Your task to perform on an android device: install app "Roku - Official Remote Control" Image 0: 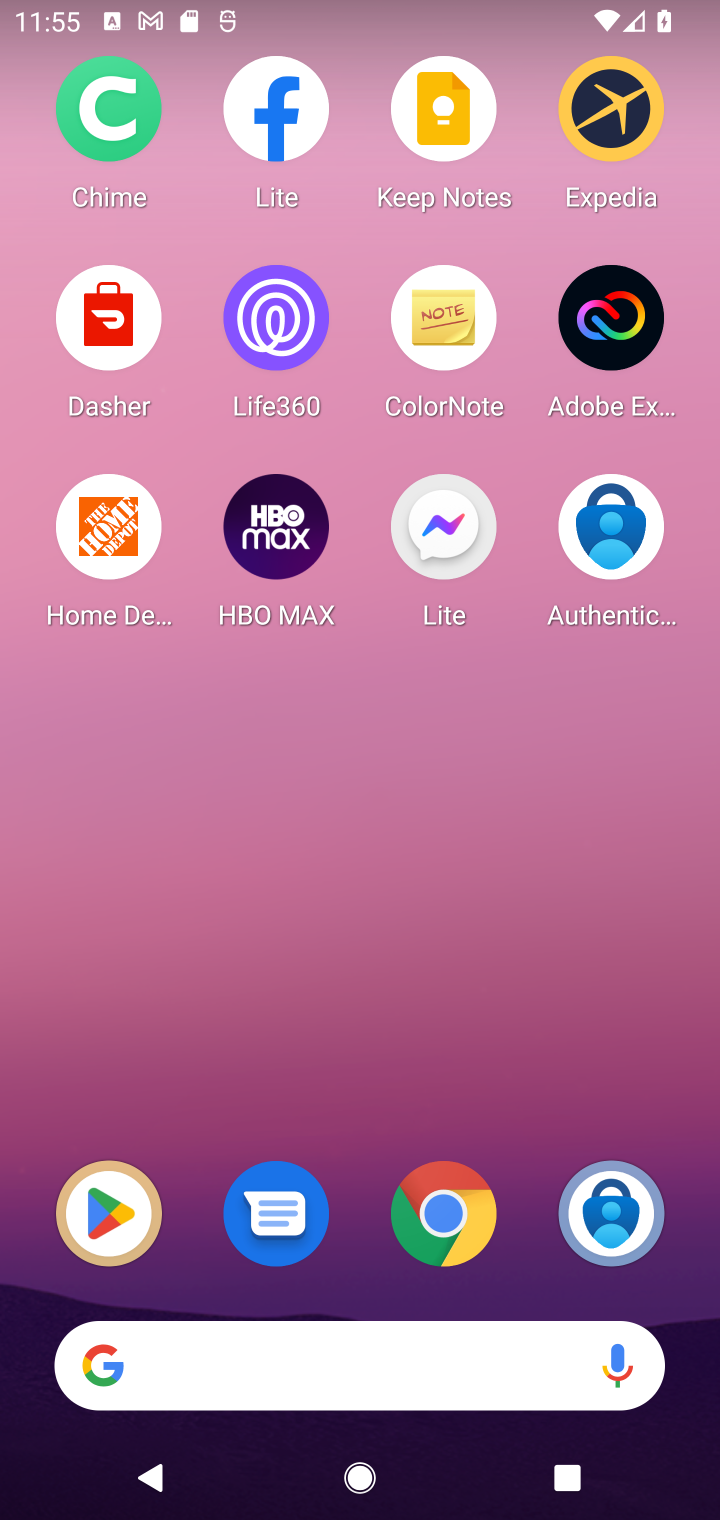
Step 0: click (67, 1241)
Your task to perform on an android device: install app "Roku - Official Remote Control" Image 1: 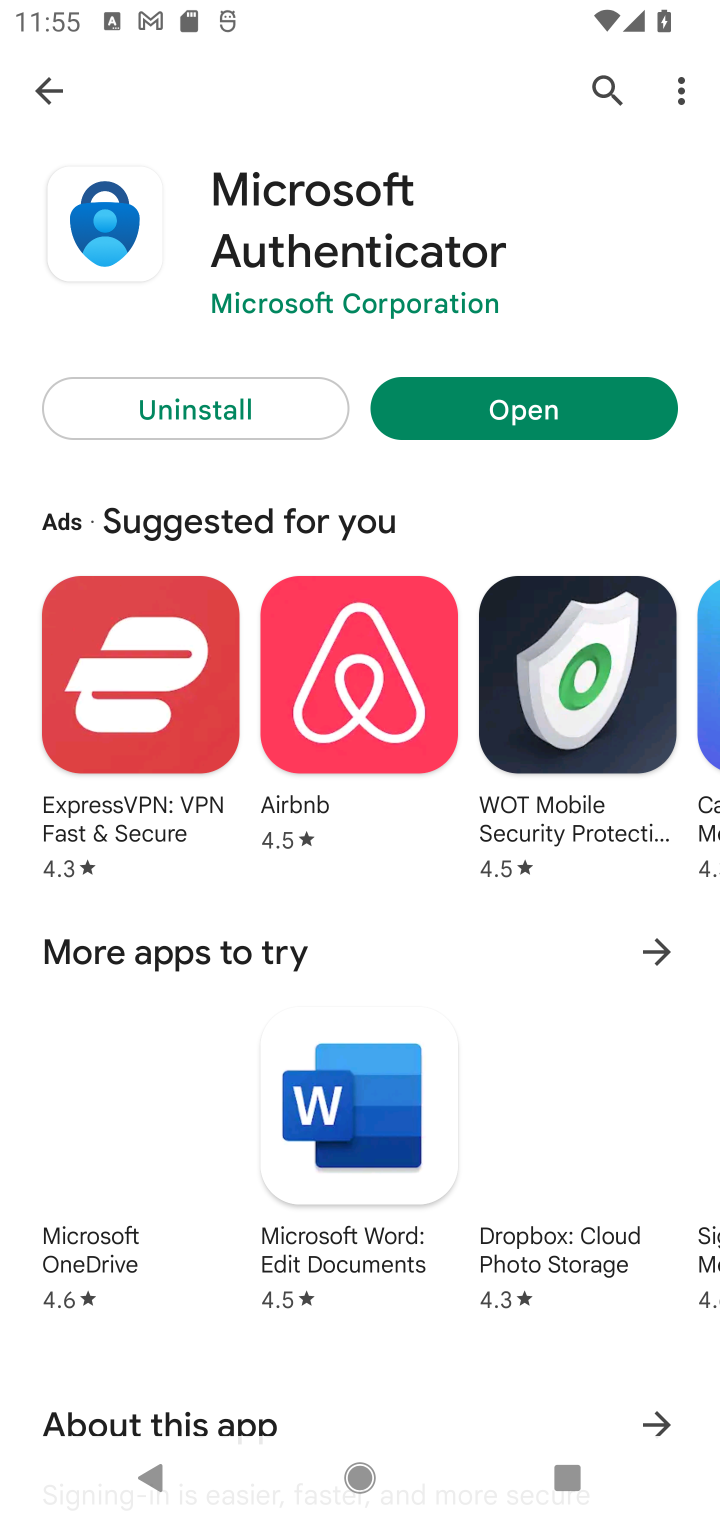
Step 1: click (49, 69)
Your task to perform on an android device: install app "Roku - Official Remote Control" Image 2: 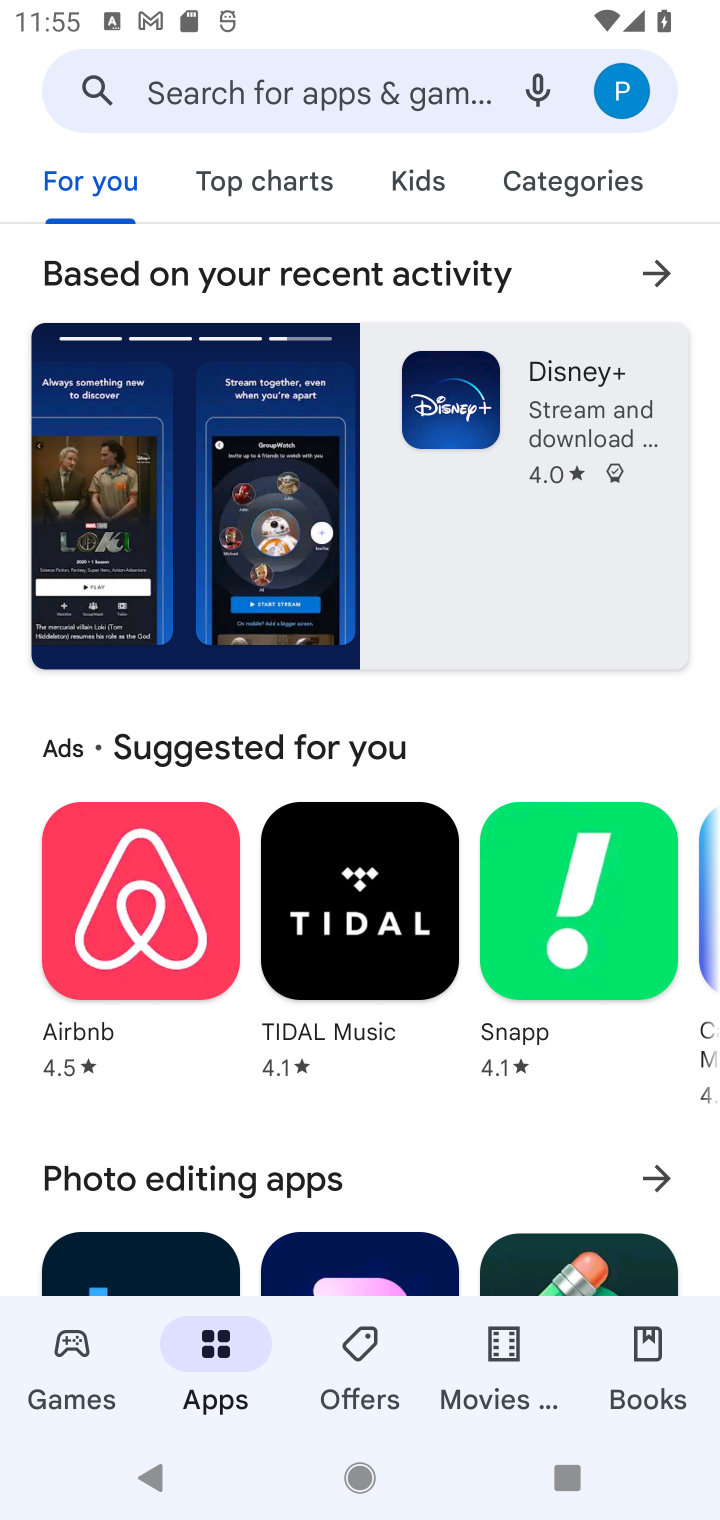
Step 2: click (282, 74)
Your task to perform on an android device: install app "Roku - Official Remote Control" Image 3: 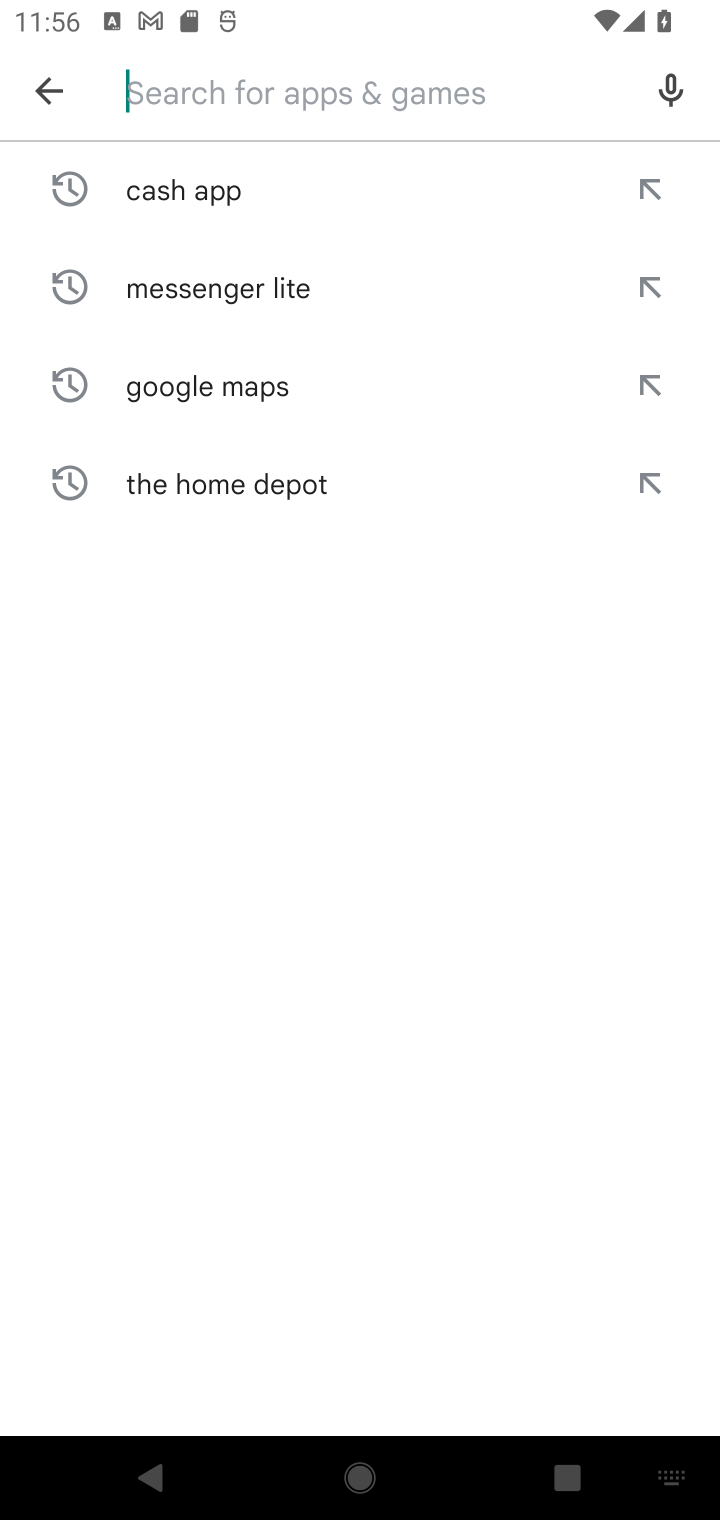
Step 3: type "Roku"
Your task to perform on an android device: install app "Roku - Official Remote Control" Image 4: 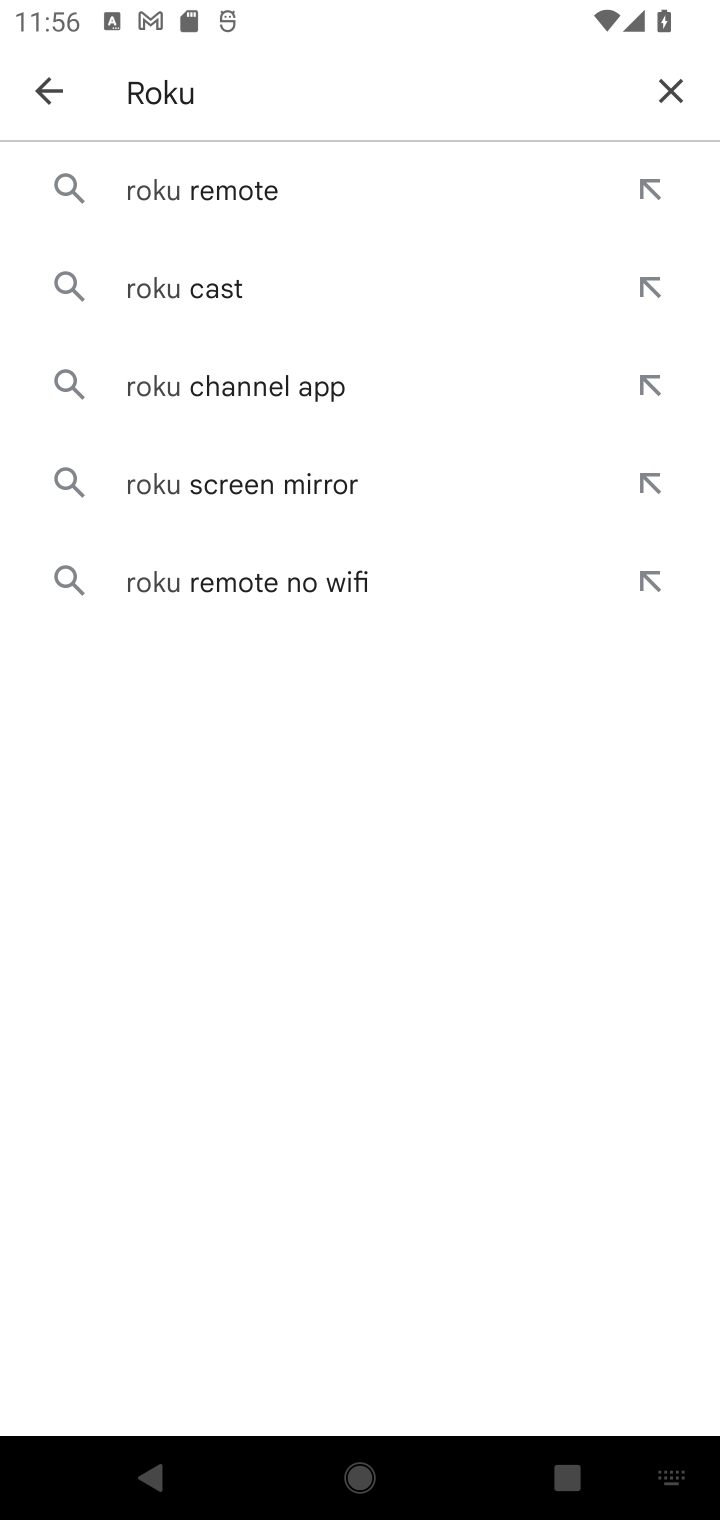
Step 4: click (681, 93)
Your task to perform on an android device: install app "Roku - Official Remote Control" Image 5: 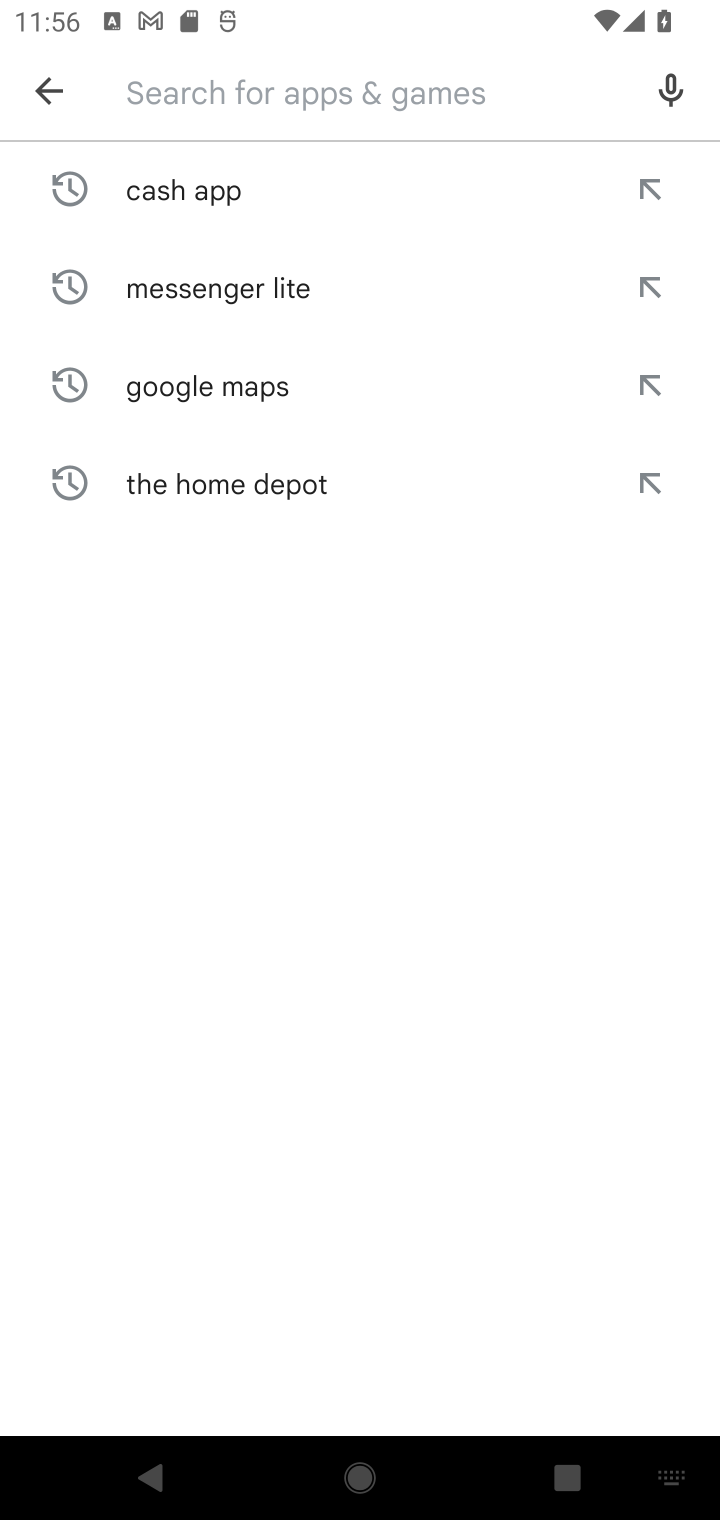
Step 5: click (398, 98)
Your task to perform on an android device: install app "Roku - Official Remote Control" Image 6: 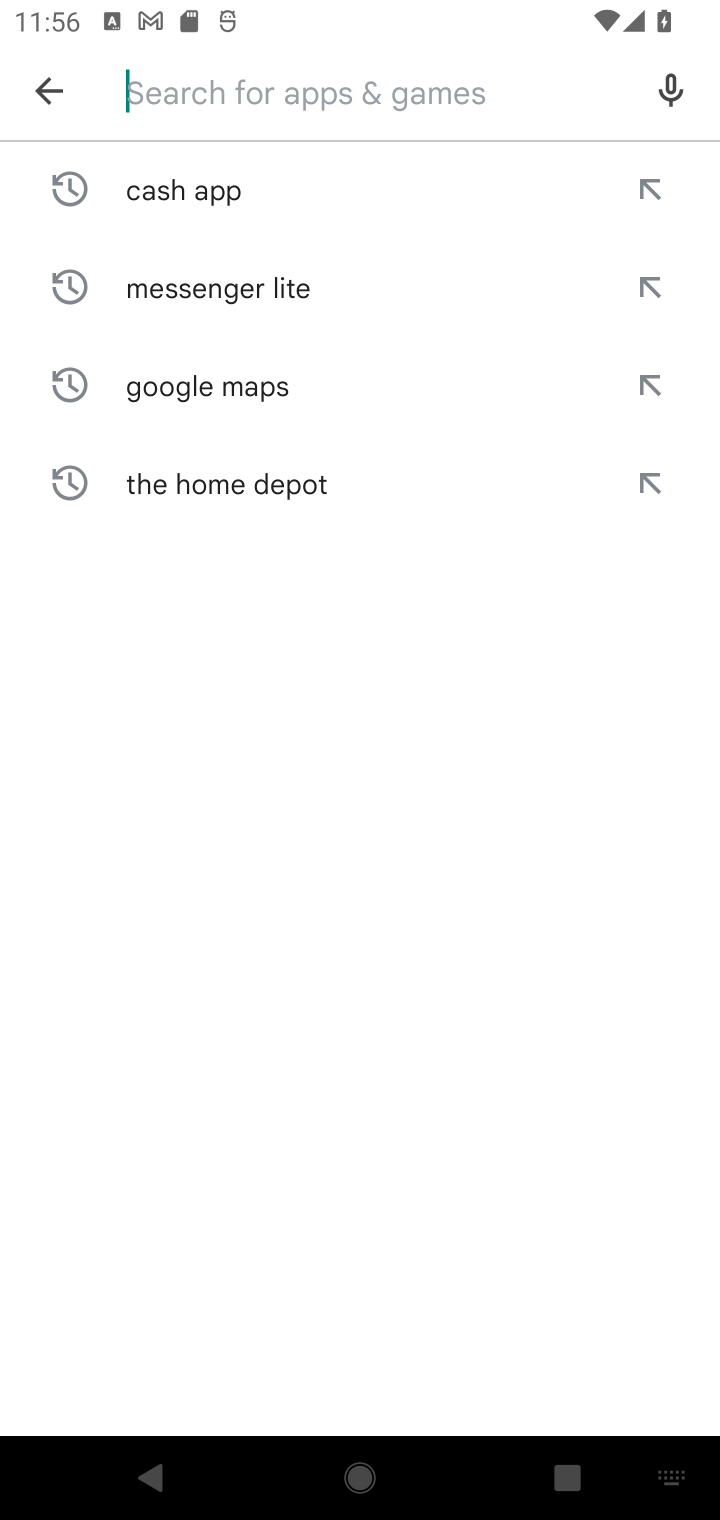
Step 6: click (398, 98)
Your task to perform on an android device: install app "Roku - Official Remote Control" Image 7: 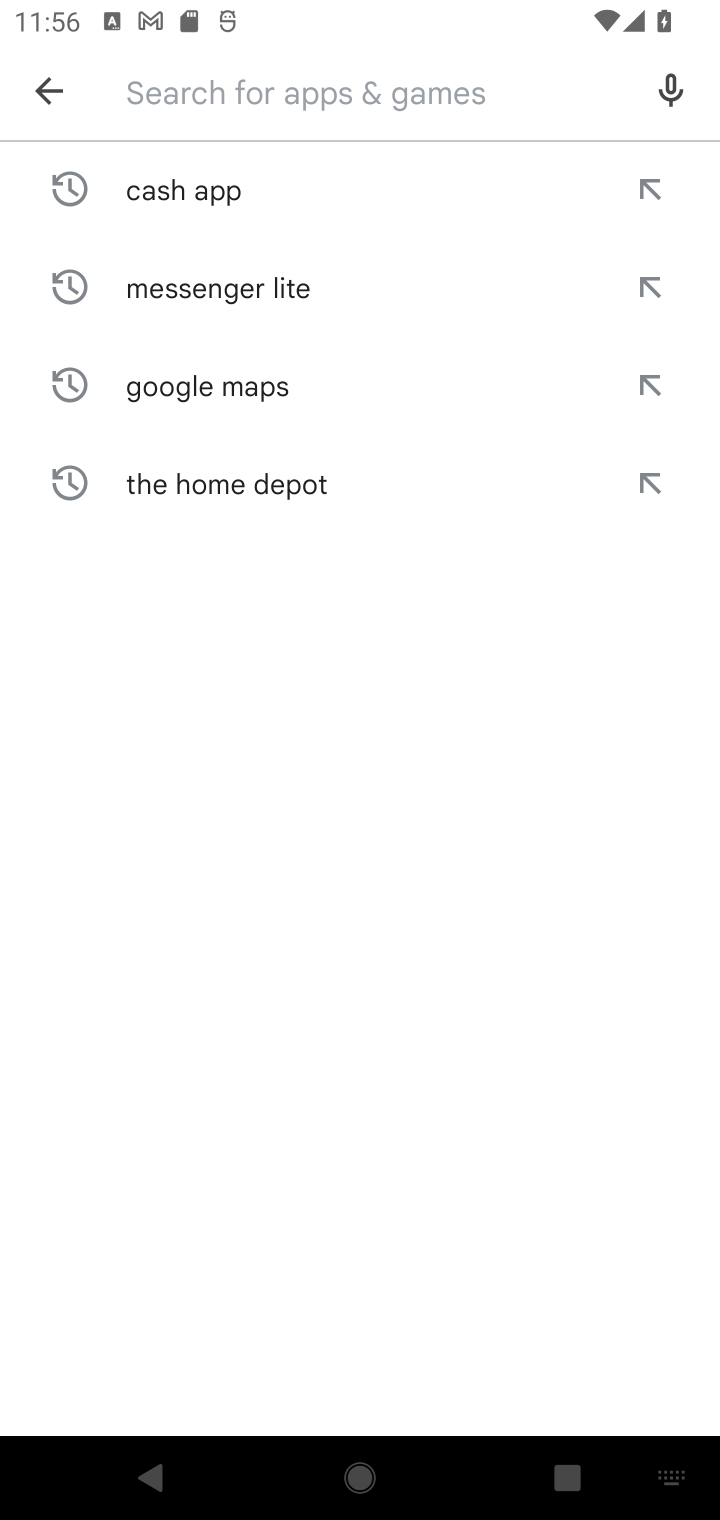
Step 7: type "Roku - Official Remote Control"
Your task to perform on an android device: install app "Roku - Official Remote Control" Image 8: 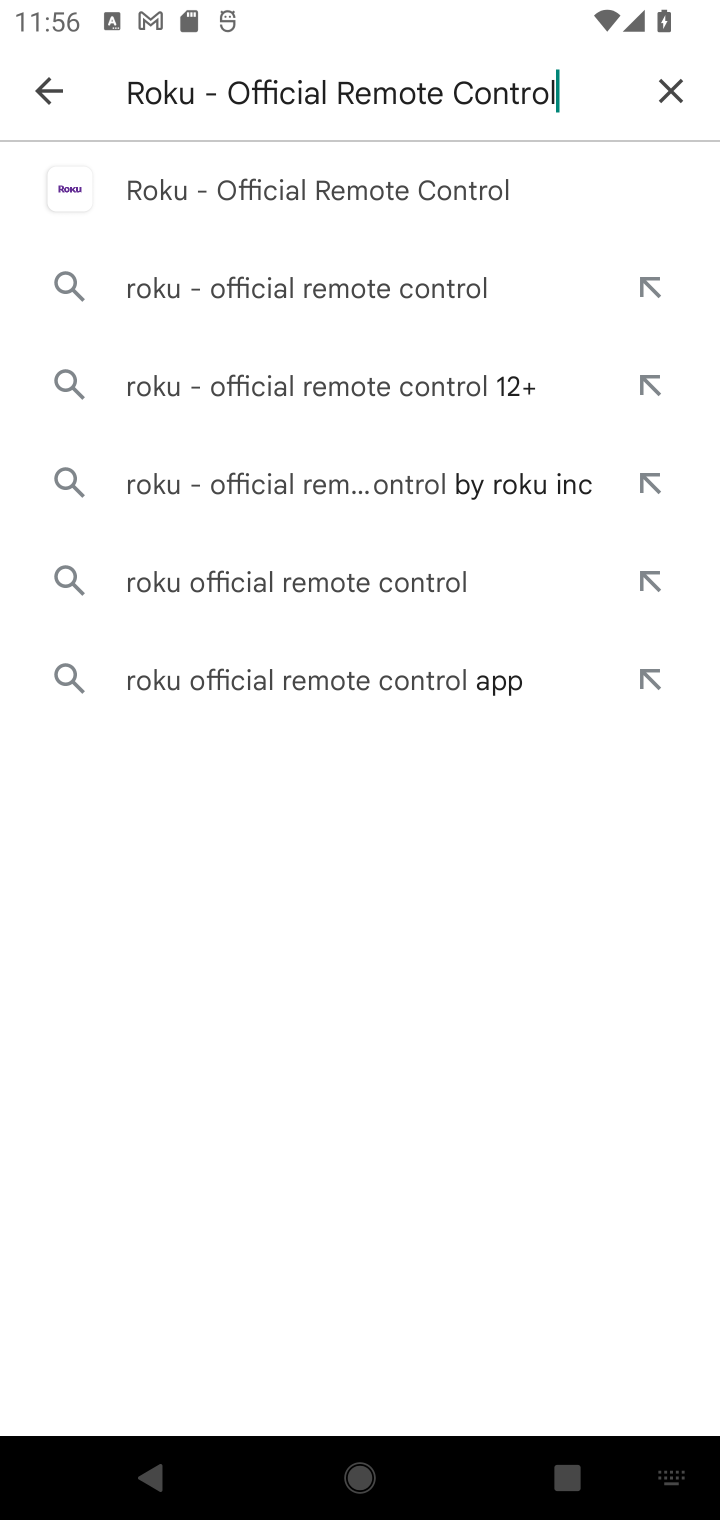
Step 8: click (271, 193)
Your task to perform on an android device: install app "Roku - Official Remote Control" Image 9: 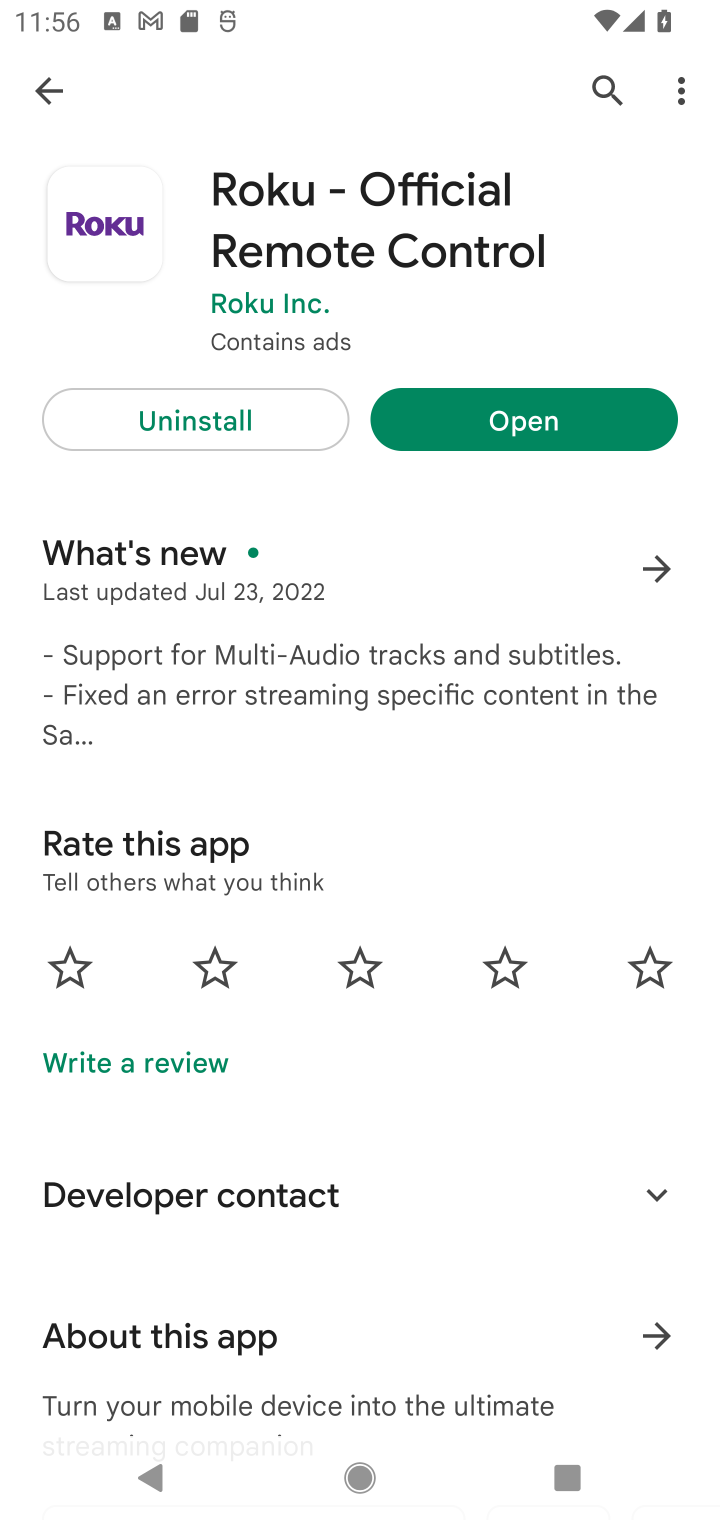
Step 9: task complete